Your task to perform on an android device: Open the map Image 0: 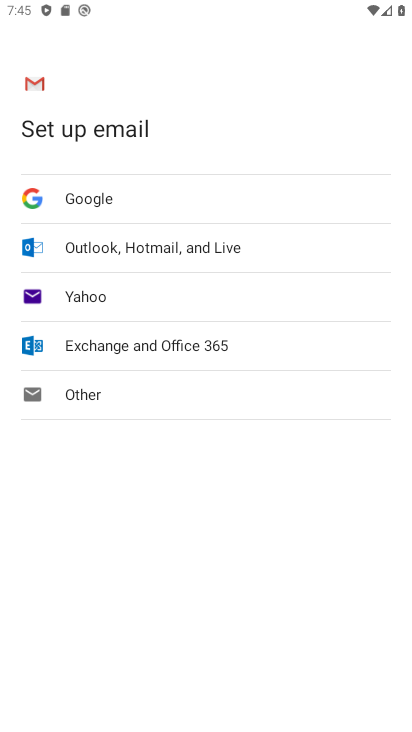
Step 0: press home button
Your task to perform on an android device: Open the map Image 1: 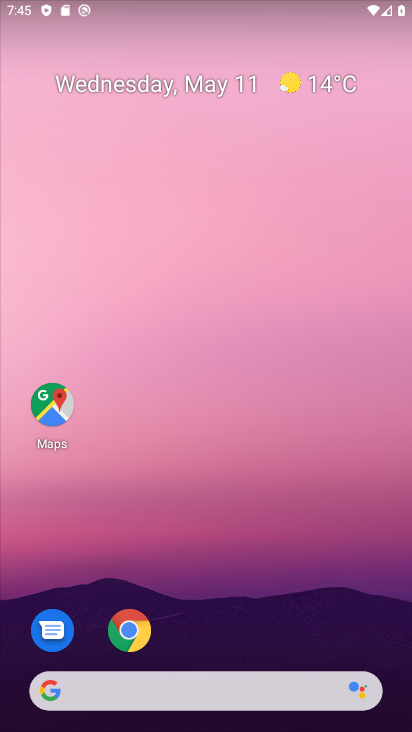
Step 1: click (58, 390)
Your task to perform on an android device: Open the map Image 2: 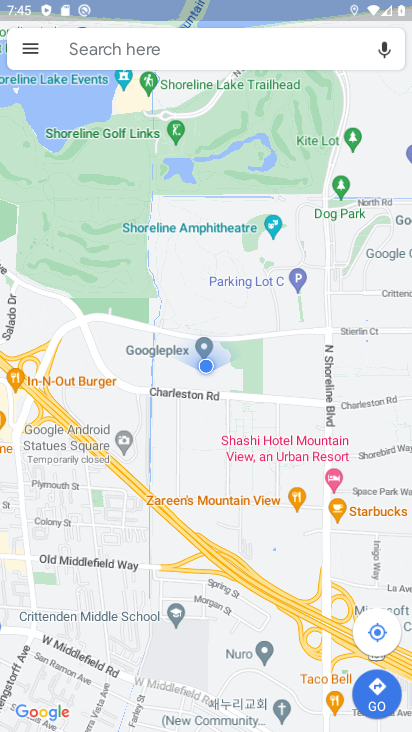
Step 2: task complete